Your task to perform on an android device: Open the calendar app, open the side menu, and click the "Day" option Image 0: 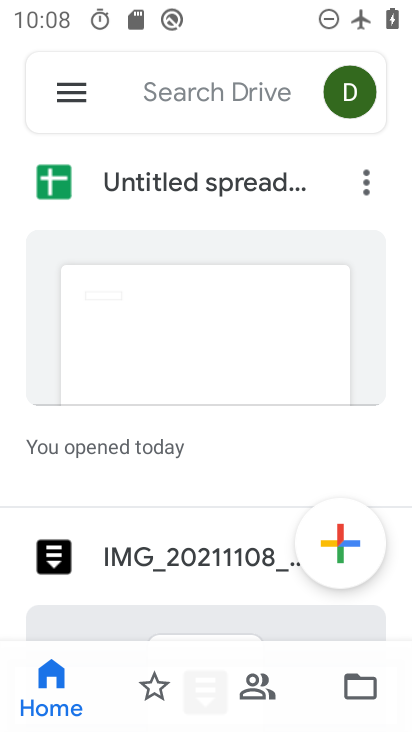
Step 0: press home button
Your task to perform on an android device: Open the calendar app, open the side menu, and click the "Day" option Image 1: 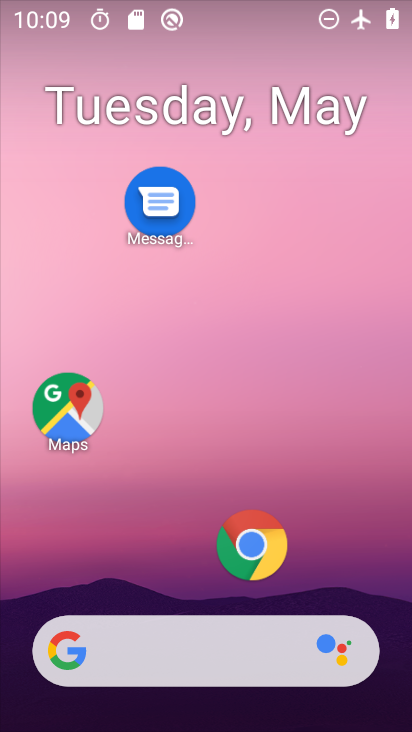
Step 1: drag from (175, 576) to (175, 207)
Your task to perform on an android device: Open the calendar app, open the side menu, and click the "Day" option Image 2: 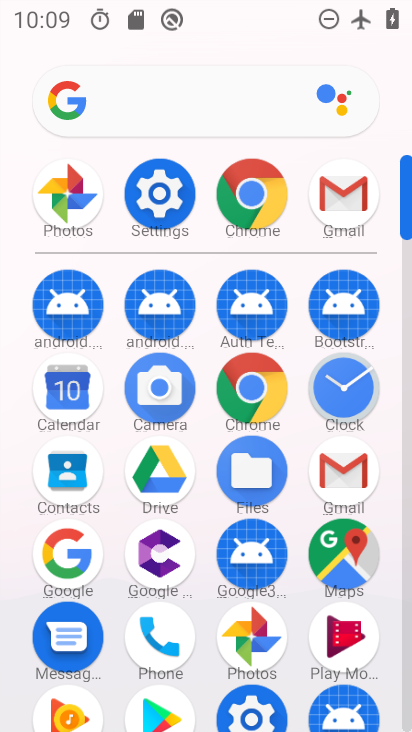
Step 2: click (80, 391)
Your task to perform on an android device: Open the calendar app, open the side menu, and click the "Day" option Image 3: 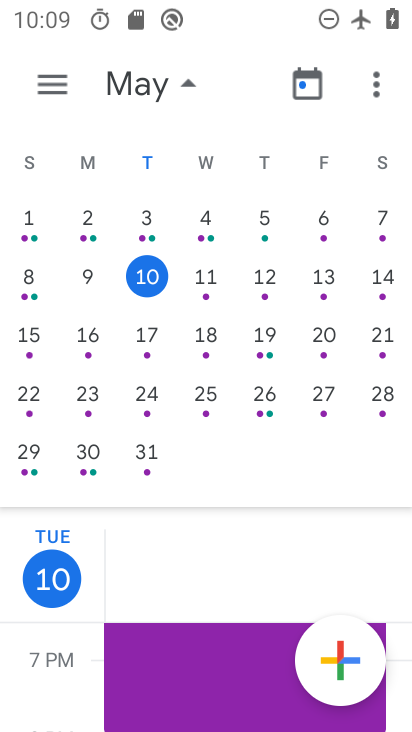
Step 3: click (49, 88)
Your task to perform on an android device: Open the calendar app, open the side menu, and click the "Day" option Image 4: 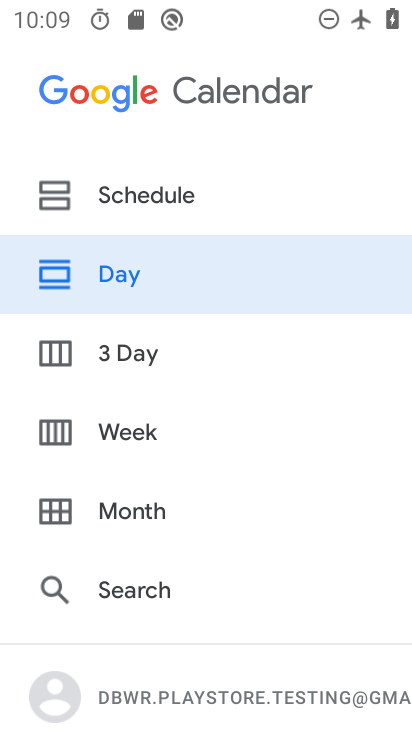
Step 4: click (123, 284)
Your task to perform on an android device: Open the calendar app, open the side menu, and click the "Day" option Image 5: 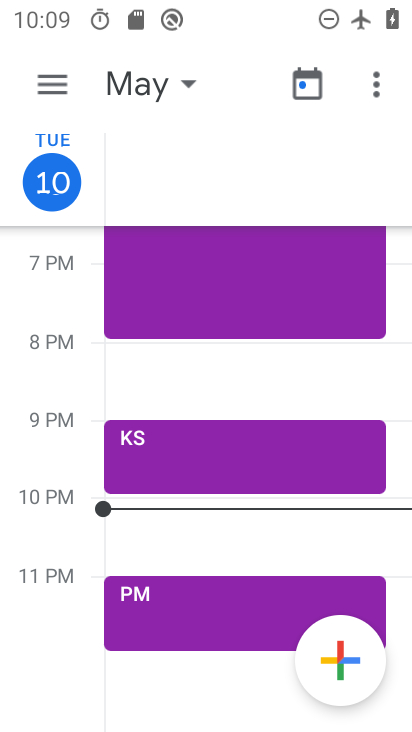
Step 5: task complete